Your task to perform on an android device: turn on location history Image 0: 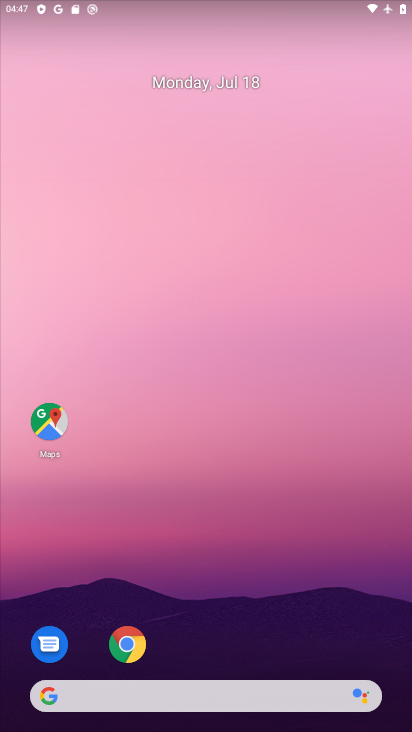
Step 0: press home button
Your task to perform on an android device: turn on location history Image 1: 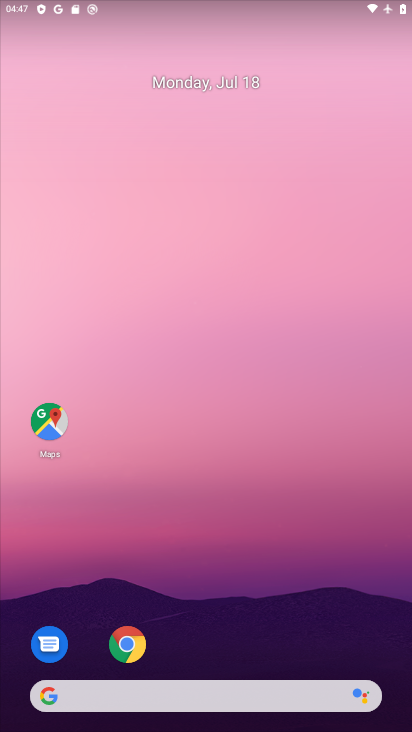
Step 1: drag from (244, 645) to (204, 81)
Your task to perform on an android device: turn on location history Image 2: 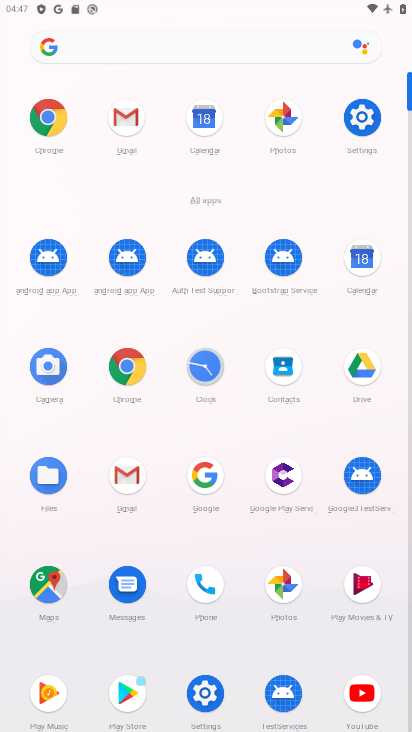
Step 2: click (353, 117)
Your task to perform on an android device: turn on location history Image 3: 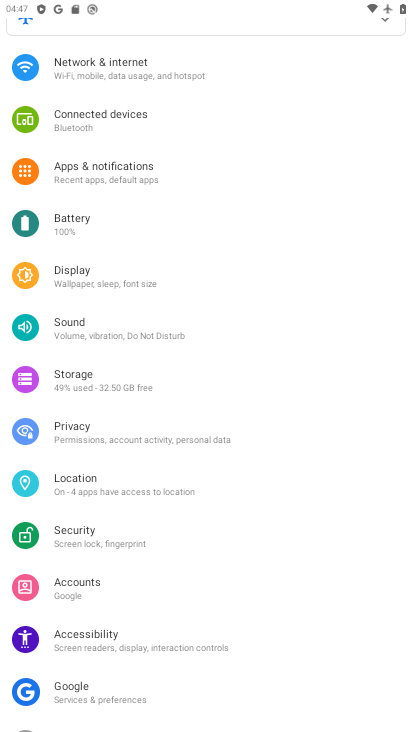
Step 3: click (62, 479)
Your task to perform on an android device: turn on location history Image 4: 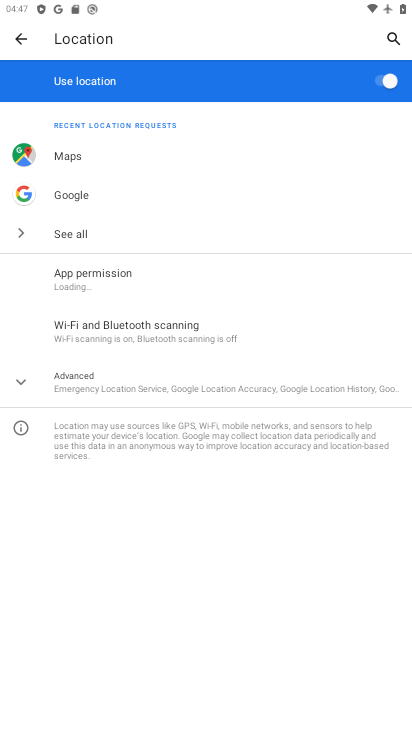
Step 4: click (91, 388)
Your task to perform on an android device: turn on location history Image 5: 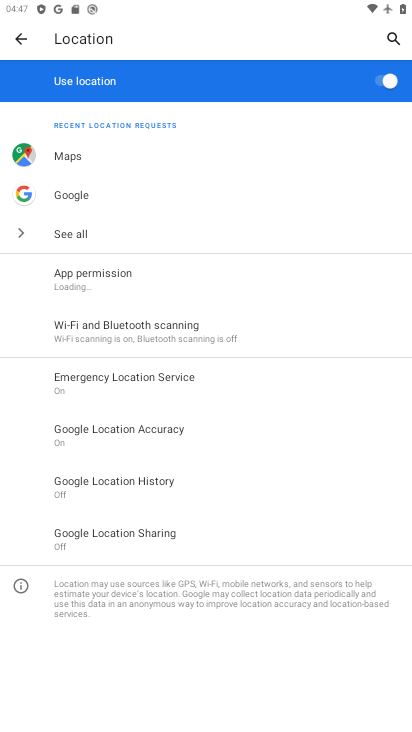
Step 5: click (142, 482)
Your task to perform on an android device: turn on location history Image 6: 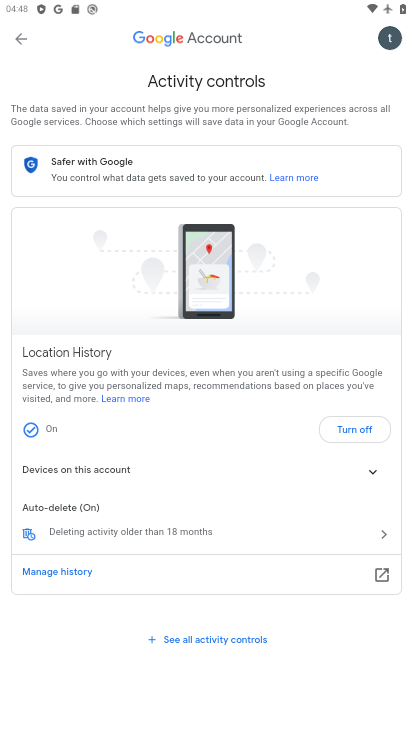
Step 6: task complete